Your task to perform on an android device: set the timer Image 0: 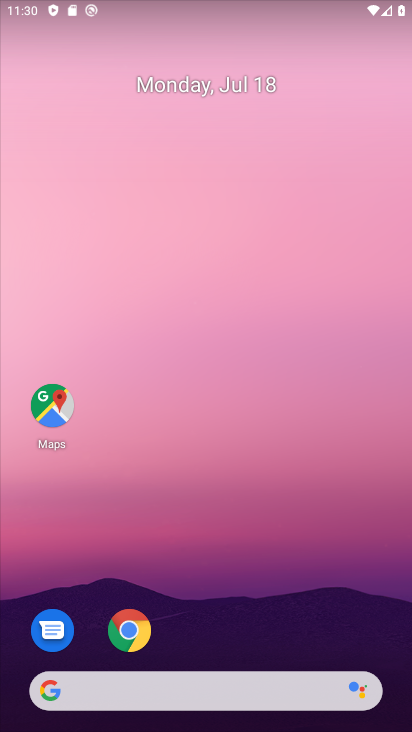
Step 0: drag from (207, 651) to (302, 33)
Your task to perform on an android device: set the timer Image 1: 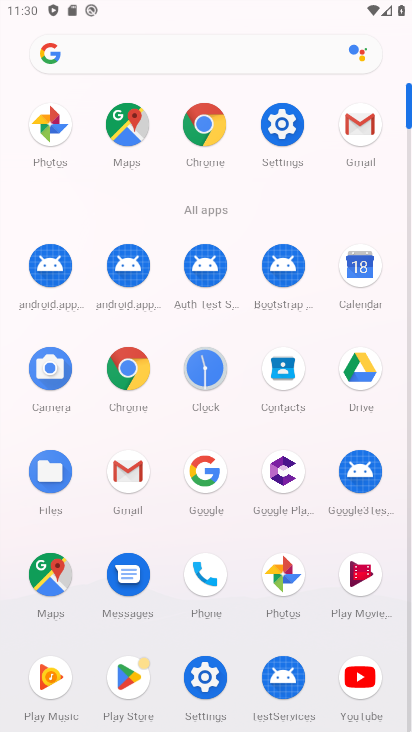
Step 1: click (203, 384)
Your task to perform on an android device: set the timer Image 2: 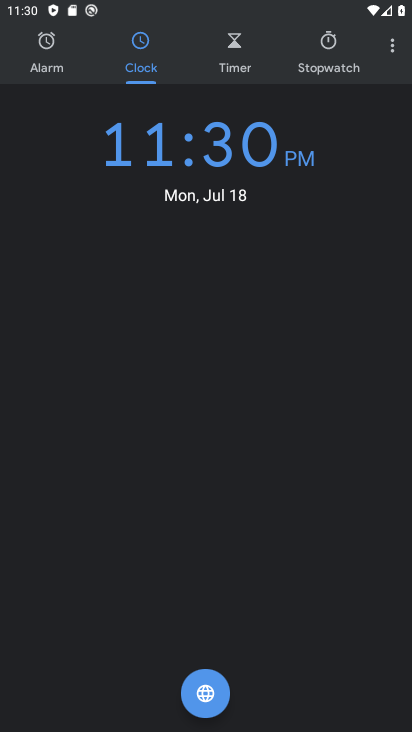
Step 2: click (213, 48)
Your task to perform on an android device: set the timer Image 3: 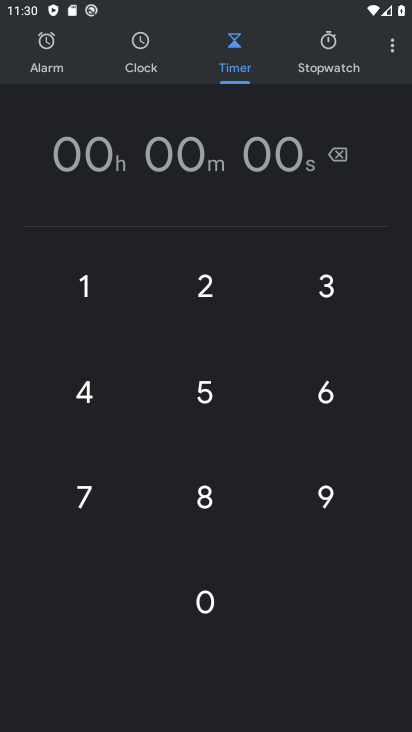
Step 3: click (226, 523)
Your task to perform on an android device: set the timer Image 4: 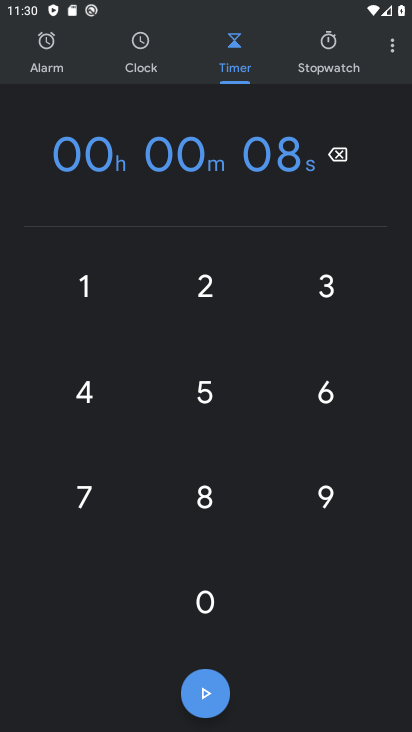
Step 4: click (213, 681)
Your task to perform on an android device: set the timer Image 5: 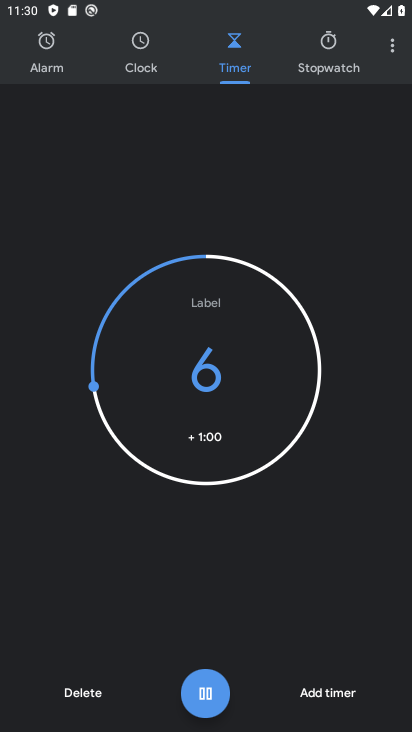
Step 5: click (213, 681)
Your task to perform on an android device: set the timer Image 6: 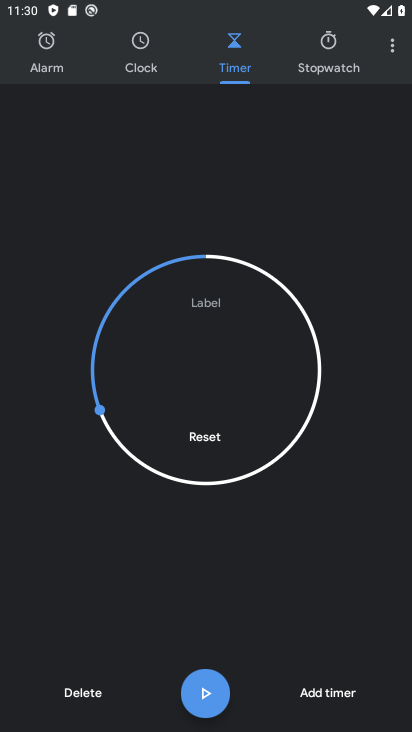
Step 6: click (213, 681)
Your task to perform on an android device: set the timer Image 7: 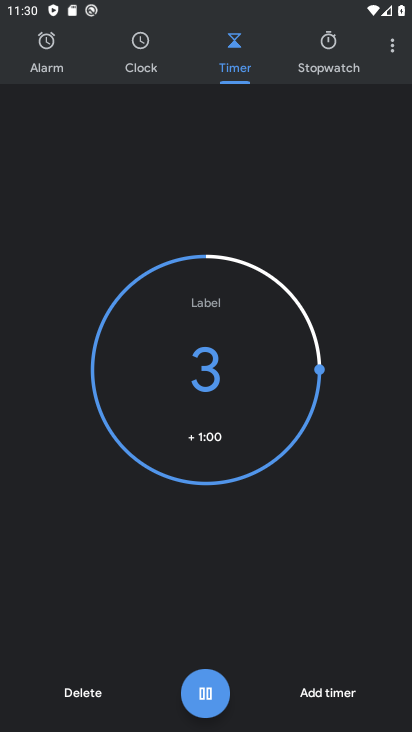
Step 7: task complete